Your task to perform on an android device: delete location history Image 0: 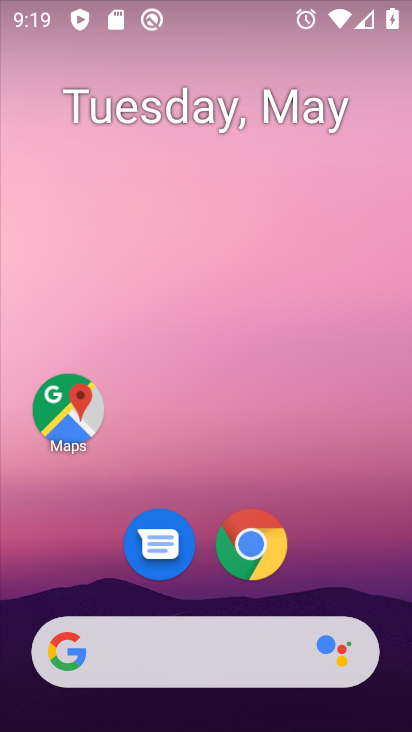
Step 0: drag from (358, 540) to (315, 243)
Your task to perform on an android device: delete location history Image 1: 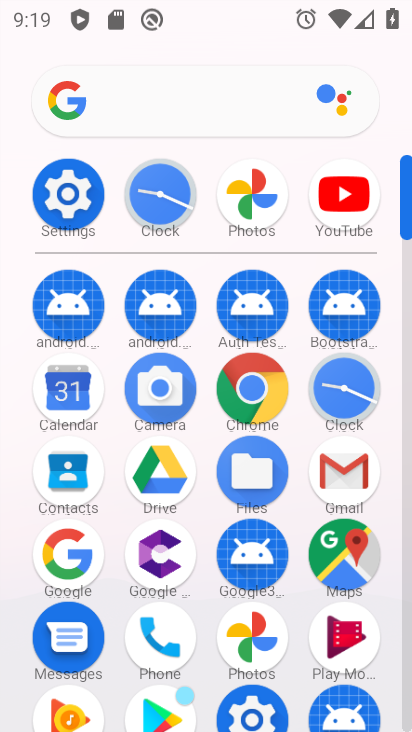
Step 1: click (90, 206)
Your task to perform on an android device: delete location history Image 2: 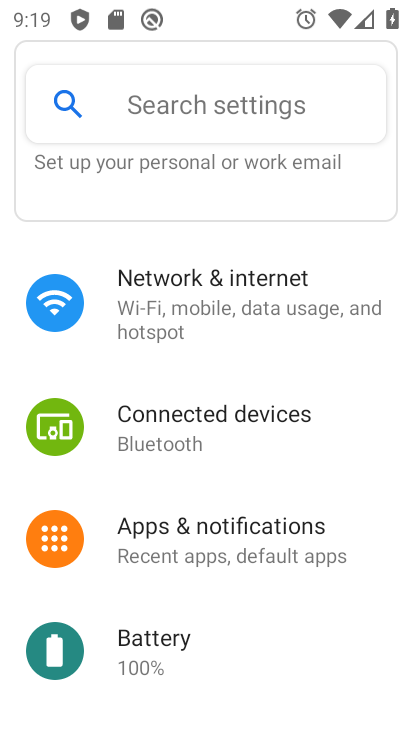
Step 2: drag from (244, 635) to (252, 338)
Your task to perform on an android device: delete location history Image 3: 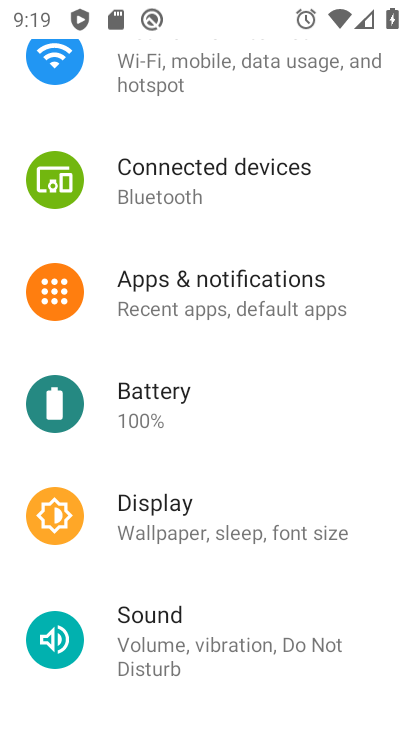
Step 3: drag from (256, 676) to (254, 376)
Your task to perform on an android device: delete location history Image 4: 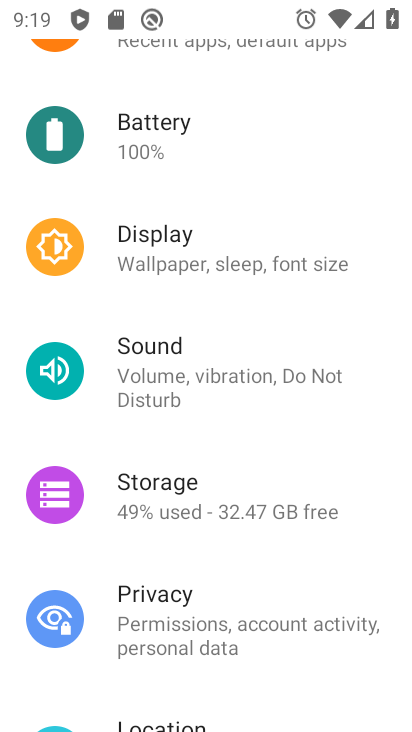
Step 4: drag from (227, 664) to (246, 409)
Your task to perform on an android device: delete location history Image 5: 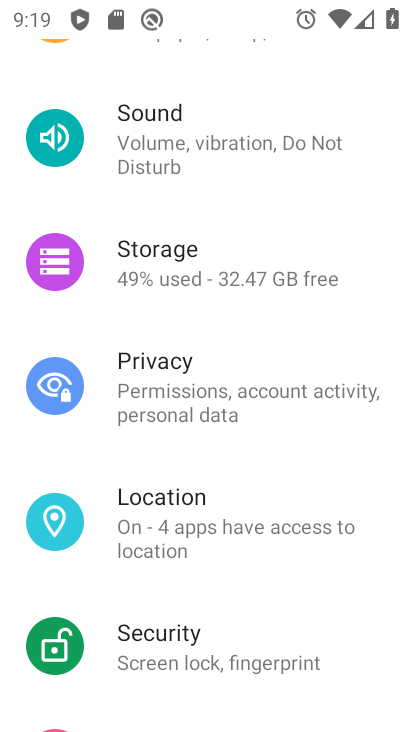
Step 5: click (177, 510)
Your task to perform on an android device: delete location history Image 6: 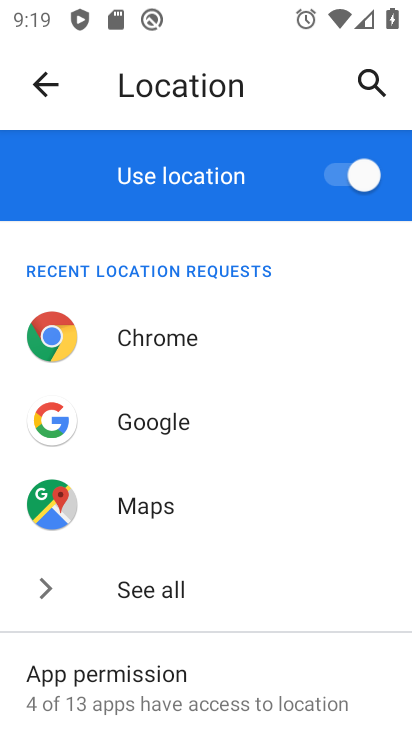
Step 6: drag from (242, 680) to (259, 394)
Your task to perform on an android device: delete location history Image 7: 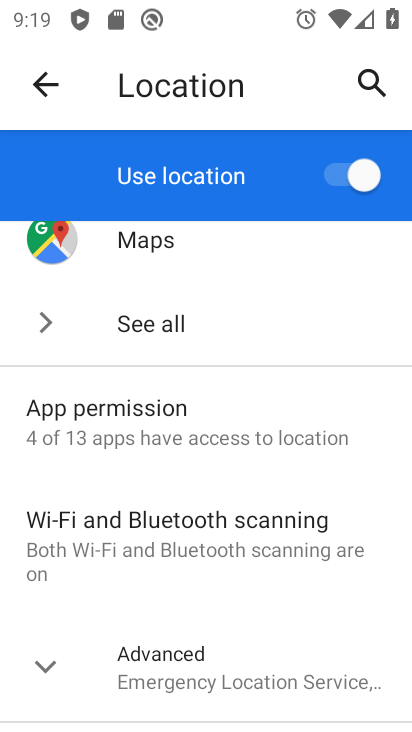
Step 7: click (247, 658)
Your task to perform on an android device: delete location history Image 8: 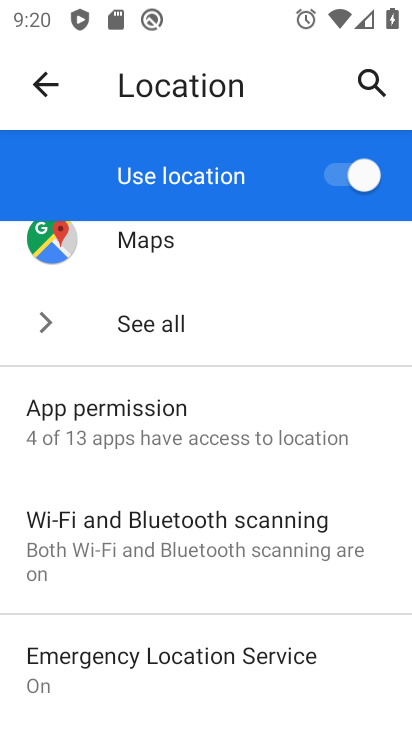
Step 8: drag from (261, 678) to (265, 316)
Your task to perform on an android device: delete location history Image 9: 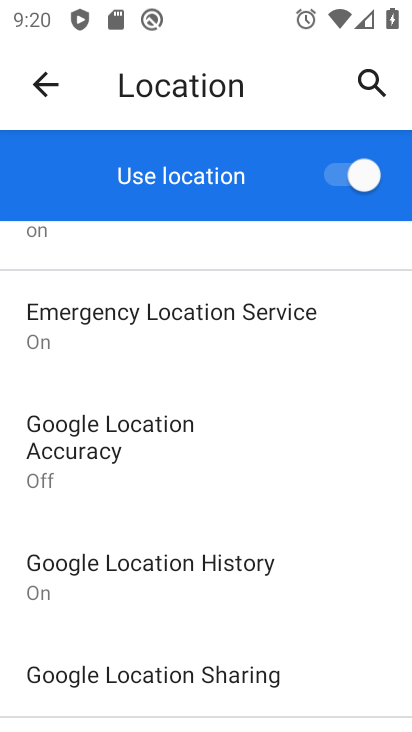
Step 9: click (229, 572)
Your task to perform on an android device: delete location history Image 10: 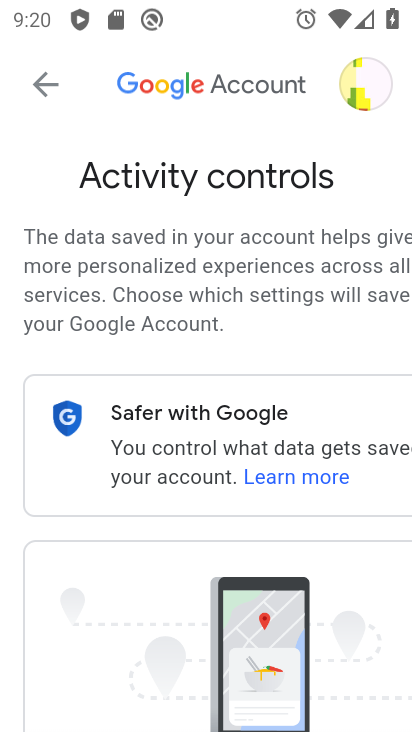
Step 10: drag from (113, 687) to (176, 268)
Your task to perform on an android device: delete location history Image 11: 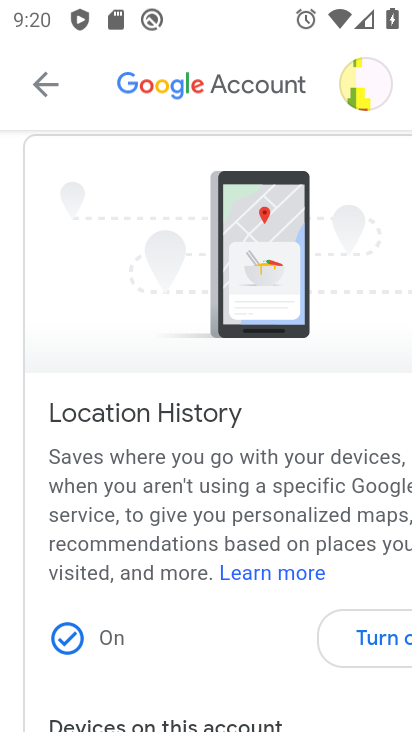
Step 11: drag from (204, 672) to (236, 326)
Your task to perform on an android device: delete location history Image 12: 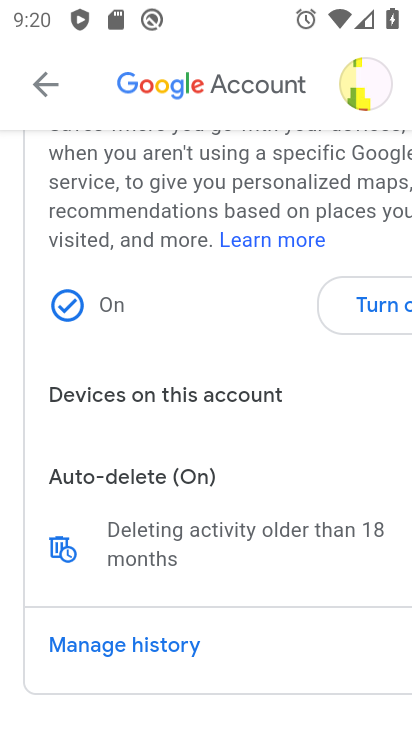
Step 12: click (172, 643)
Your task to perform on an android device: delete location history Image 13: 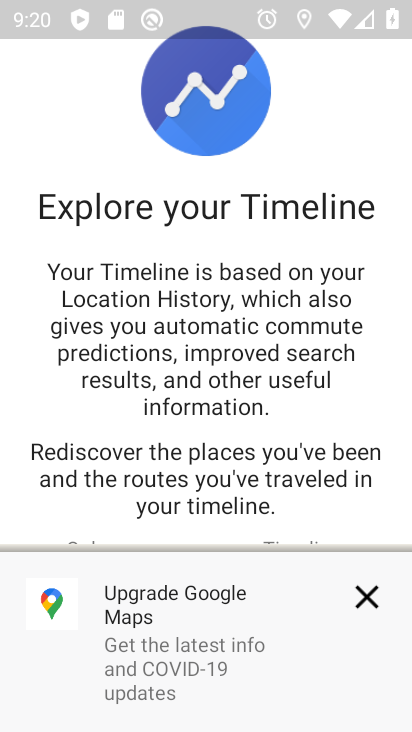
Step 13: drag from (59, 81) to (82, 211)
Your task to perform on an android device: delete location history Image 14: 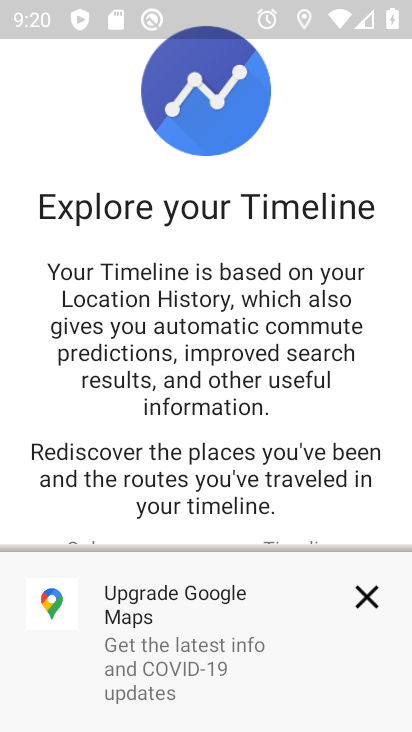
Step 14: click (378, 601)
Your task to perform on an android device: delete location history Image 15: 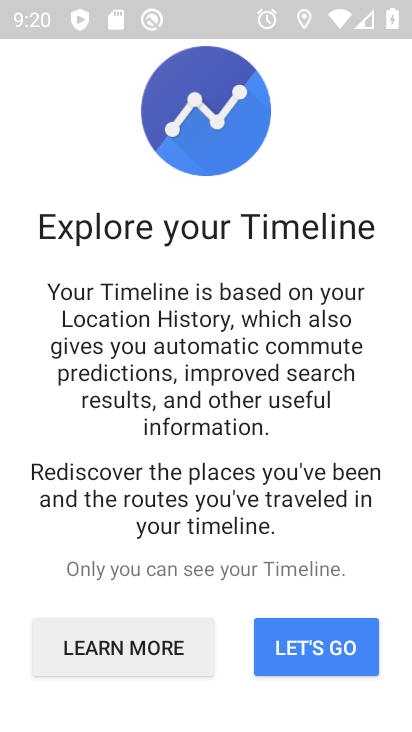
Step 15: click (325, 655)
Your task to perform on an android device: delete location history Image 16: 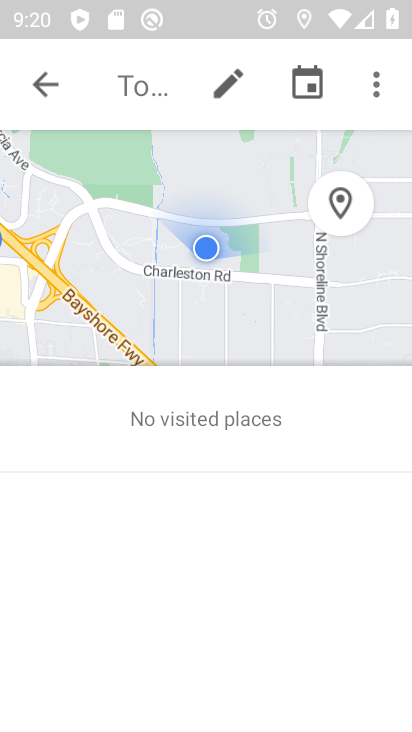
Step 16: click (389, 88)
Your task to perform on an android device: delete location history Image 17: 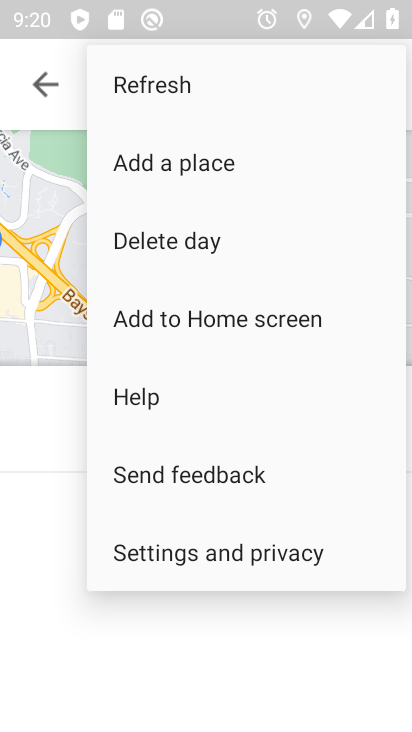
Step 17: click (289, 547)
Your task to perform on an android device: delete location history Image 18: 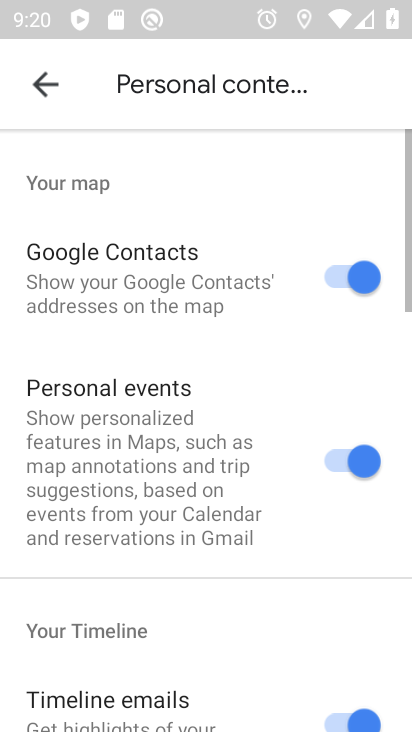
Step 18: drag from (239, 598) to (194, 247)
Your task to perform on an android device: delete location history Image 19: 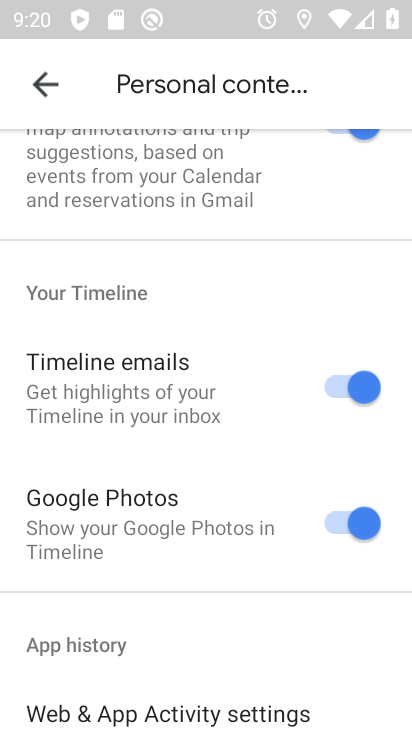
Step 19: drag from (155, 608) to (172, 289)
Your task to perform on an android device: delete location history Image 20: 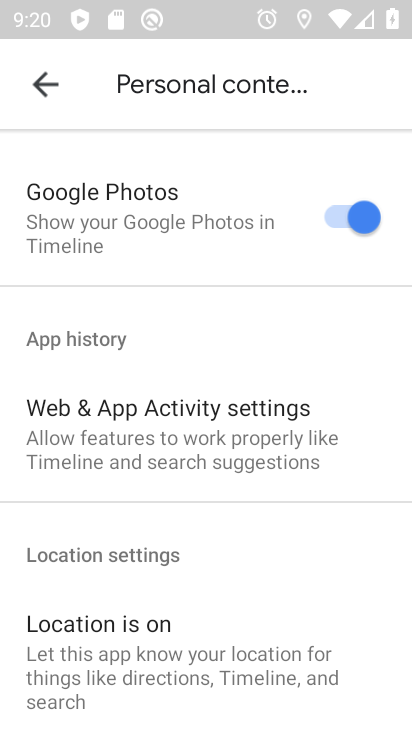
Step 20: drag from (200, 592) to (212, 319)
Your task to perform on an android device: delete location history Image 21: 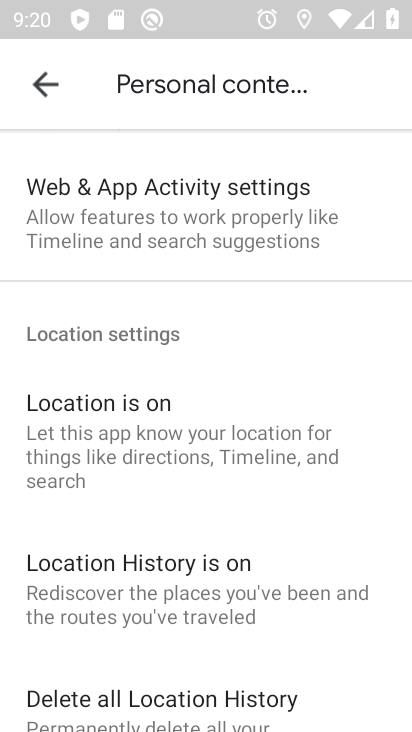
Step 21: drag from (306, 662) to (274, 365)
Your task to perform on an android device: delete location history Image 22: 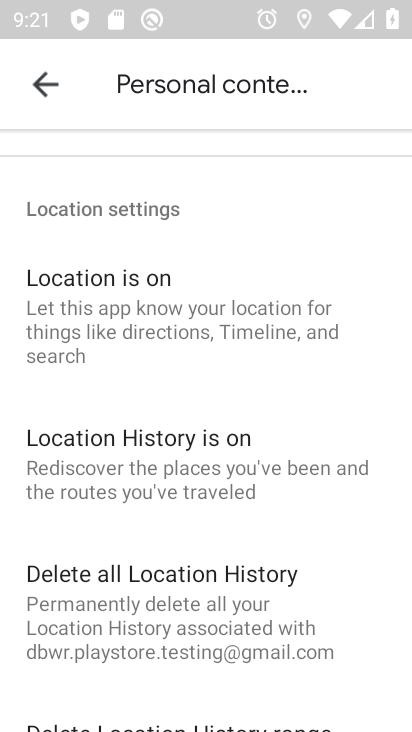
Step 22: click (239, 560)
Your task to perform on an android device: delete location history Image 23: 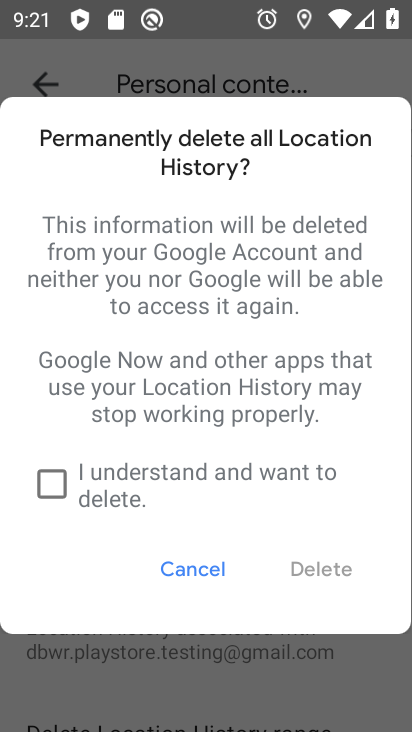
Step 23: click (54, 492)
Your task to perform on an android device: delete location history Image 24: 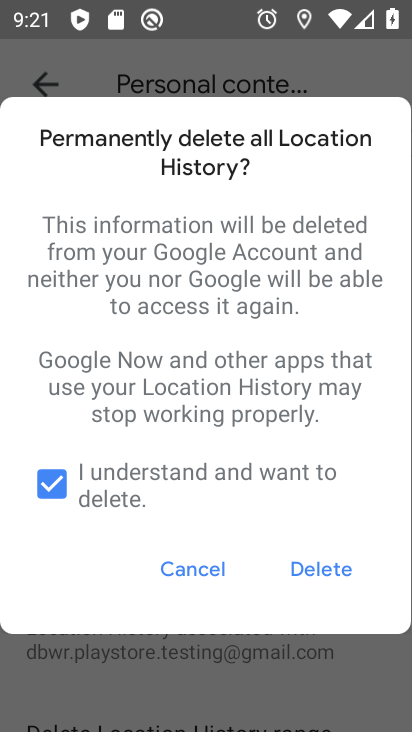
Step 24: click (317, 571)
Your task to perform on an android device: delete location history Image 25: 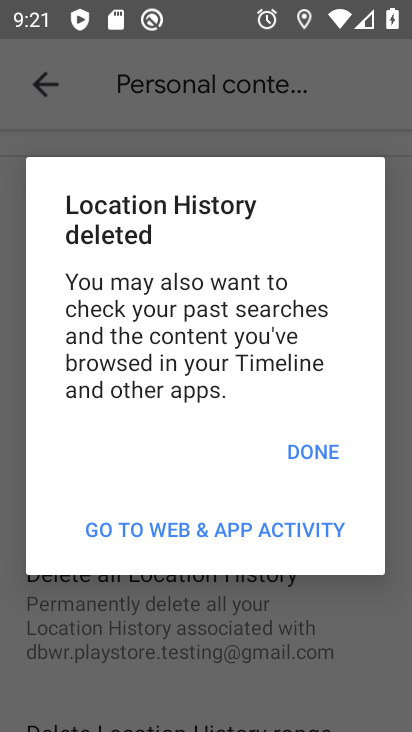
Step 25: task complete